Your task to perform on an android device: see tabs open on other devices in the chrome app Image 0: 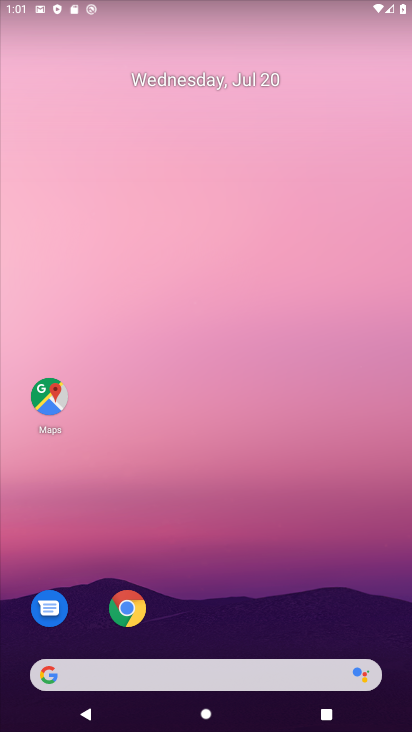
Step 0: click (108, 600)
Your task to perform on an android device: see tabs open on other devices in the chrome app Image 1: 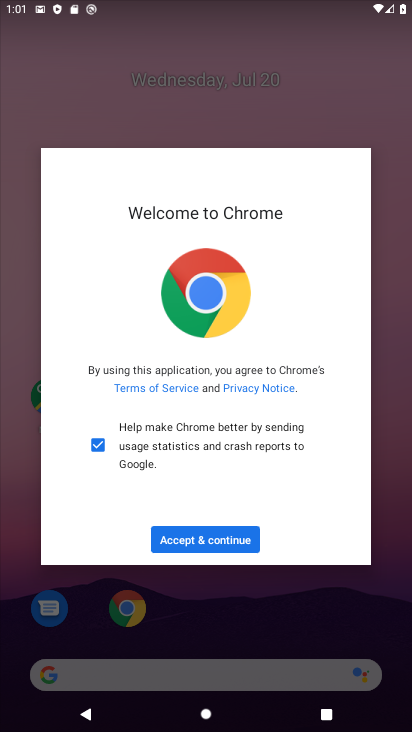
Step 1: click (197, 541)
Your task to perform on an android device: see tabs open on other devices in the chrome app Image 2: 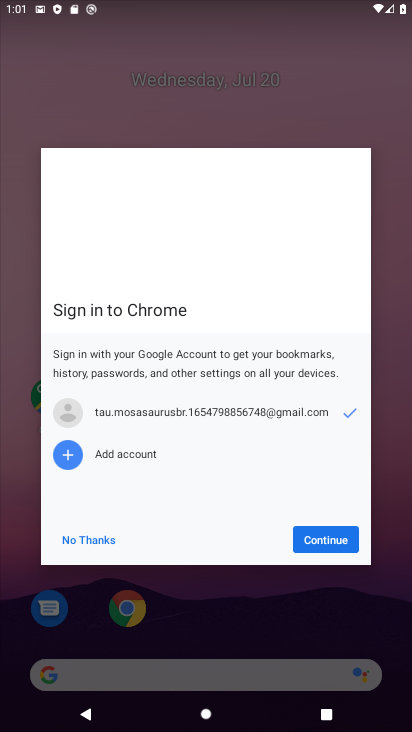
Step 2: click (311, 541)
Your task to perform on an android device: see tabs open on other devices in the chrome app Image 3: 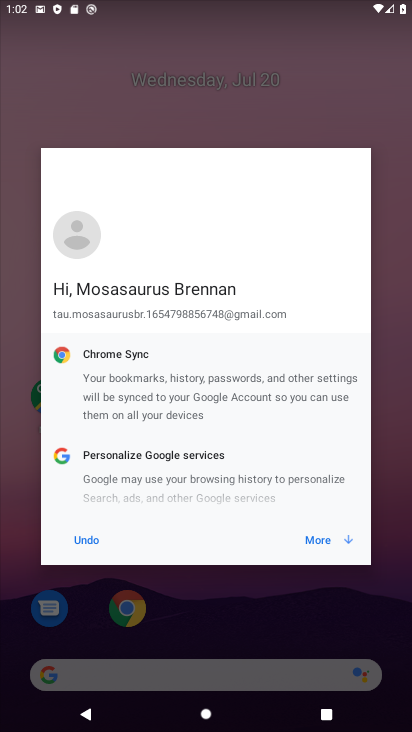
Step 3: click (317, 540)
Your task to perform on an android device: see tabs open on other devices in the chrome app Image 4: 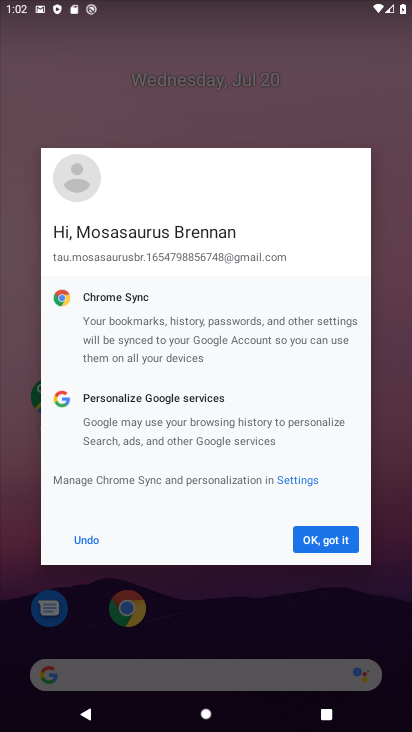
Step 4: click (322, 542)
Your task to perform on an android device: see tabs open on other devices in the chrome app Image 5: 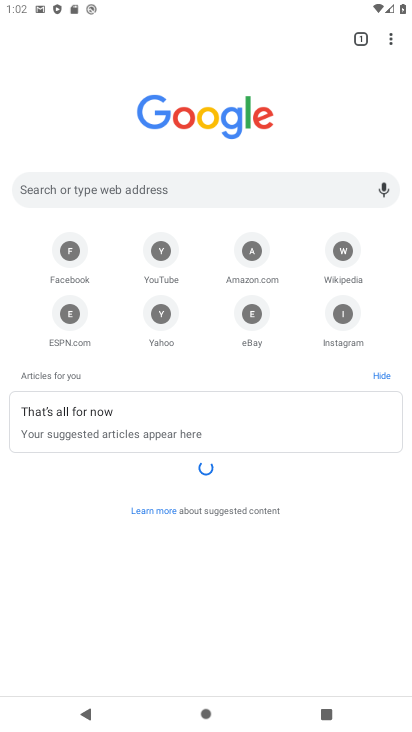
Step 5: task complete